Your task to perform on an android device: Clear the shopping cart on amazon. Search for usb-b on amazon, select the first entry, and add it to the cart. Image 0: 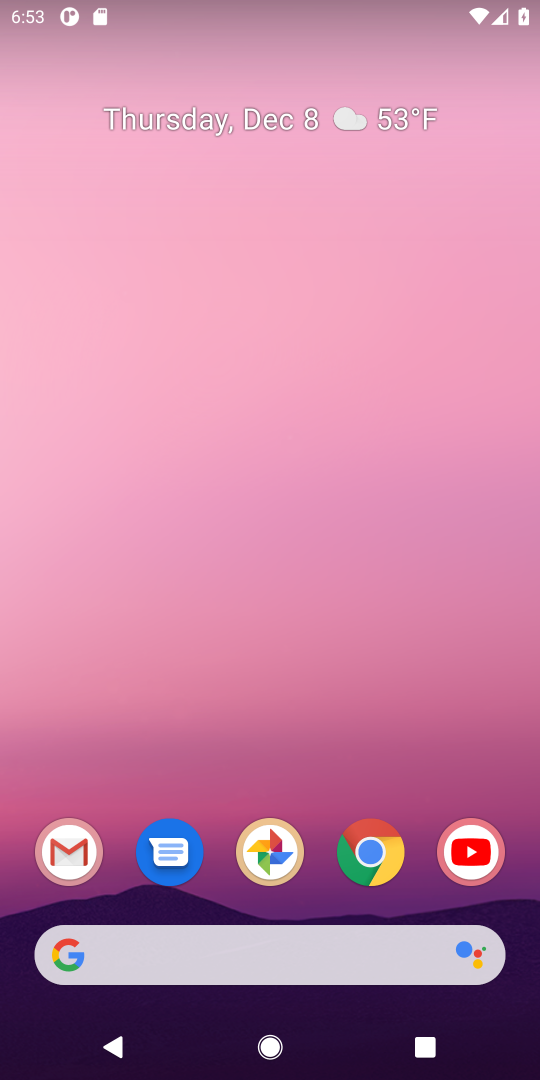
Step 0: click (339, 958)
Your task to perform on an android device: Clear the shopping cart on amazon. Search for usb-b on amazon, select the first entry, and add it to the cart. Image 1: 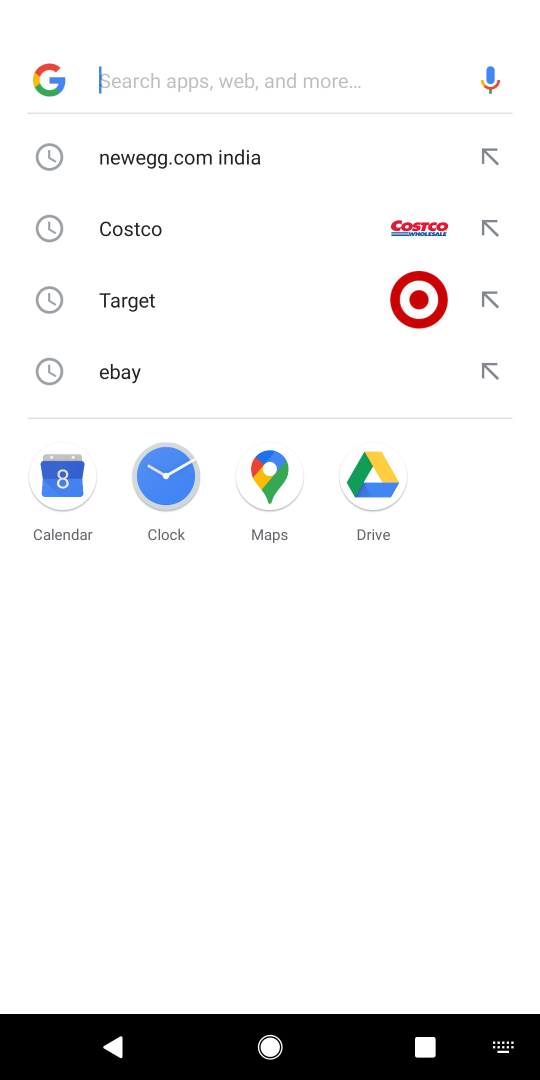
Step 1: type "amamon"
Your task to perform on an android device: Clear the shopping cart on amazon. Search for usb-b on amazon, select the first entry, and add it to the cart. Image 2: 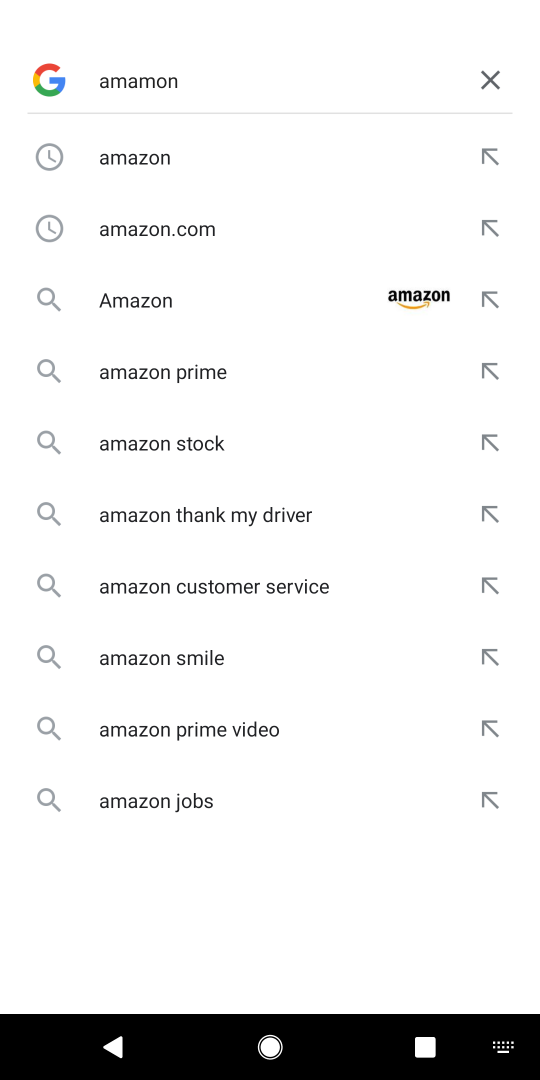
Step 2: click (157, 225)
Your task to perform on an android device: Clear the shopping cart on amazon. Search for usb-b on amazon, select the first entry, and add it to the cart. Image 3: 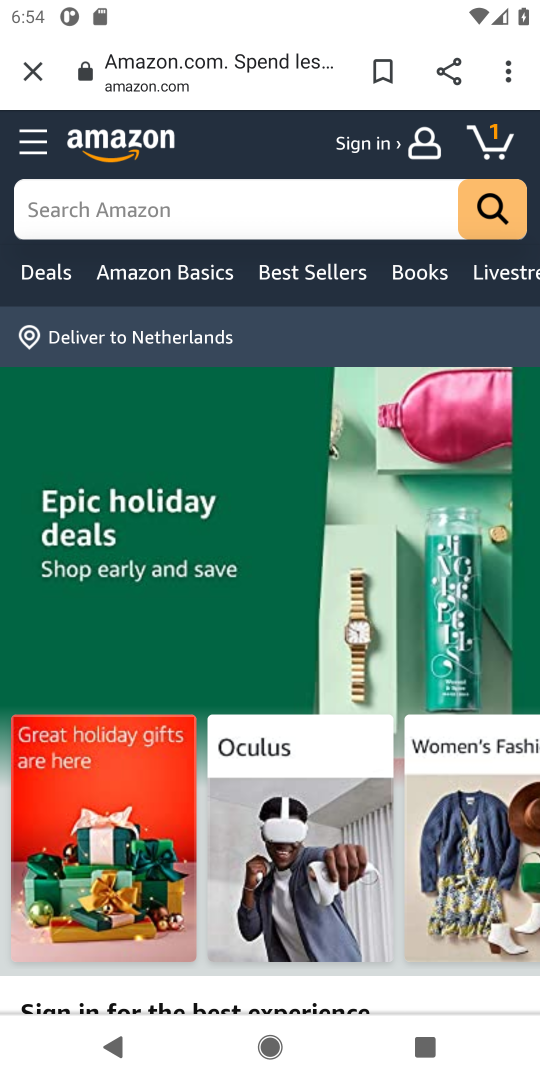
Step 3: click (142, 219)
Your task to perform on an android device: Clear the shopping cart on amazon. Search for usb-b on amazon, select the first entry, and add it to the cart. Image 4: 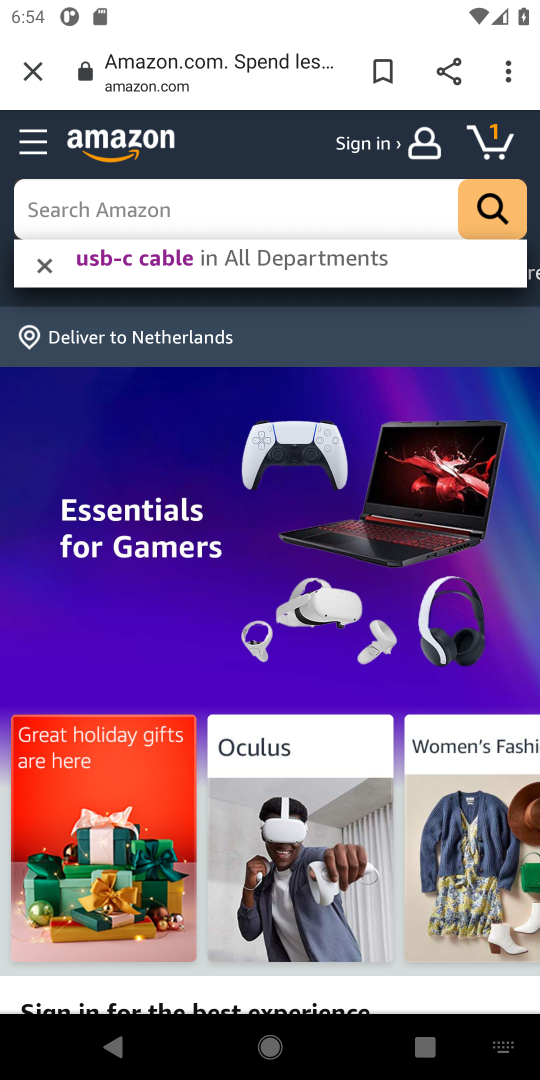
Step 4: type "usb-b"
Your task to perform on an android device: Clear the shopping cart on amazon. Search for usb-b on amazon, select the first entry, and add it to the cart. Image 5: 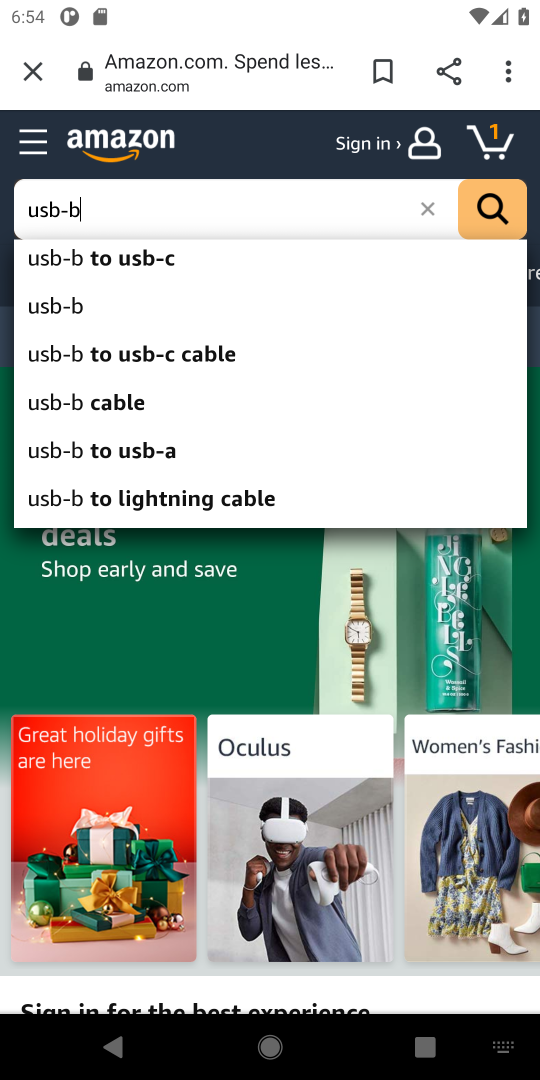
Step 5: click (24, 311)
Your task to perform on an android device: Clear the shopping cart on amazon. Search for usb-b on amazon, select the first entry, and add it to the cart. Image 6: 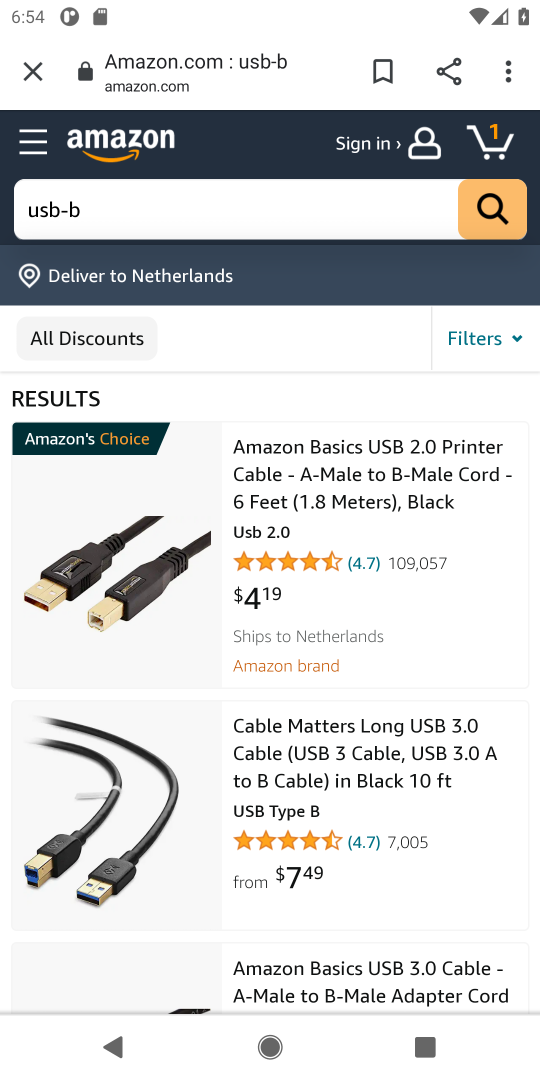
Step 6: click (316, 475)
Your task to perform on an android device: Clear the shopping cart on amazon. Search for usb-b on amazon, select the first entry, and add it to the cart. Image 7: 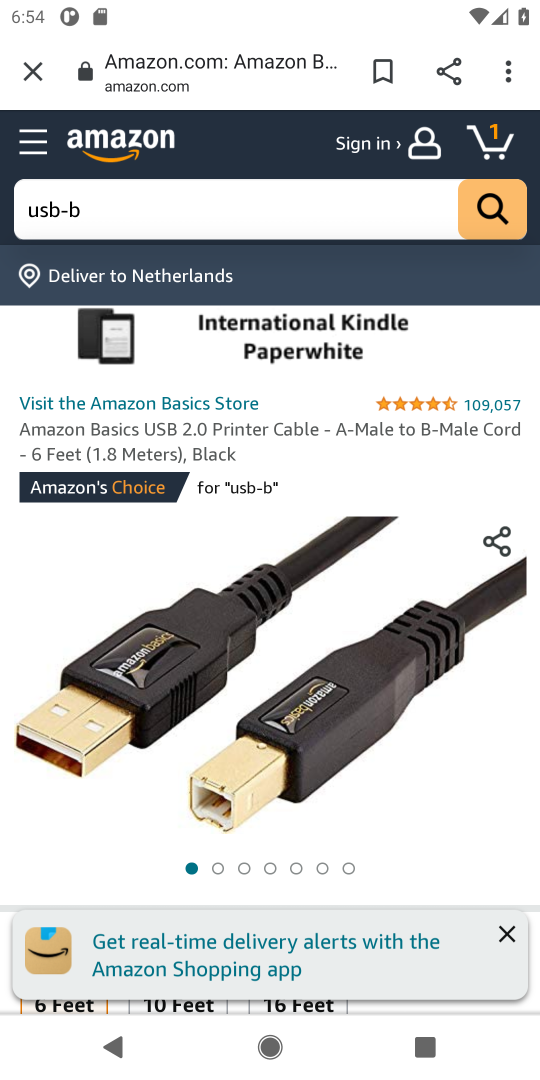
Step 7: drag from (343, 720) to (236, 422)
Your task to perform on an android device: Clear the shopping cart on amazon. Search for usb-b on amazon, select the first entry, and add it to the cart. Image 8: 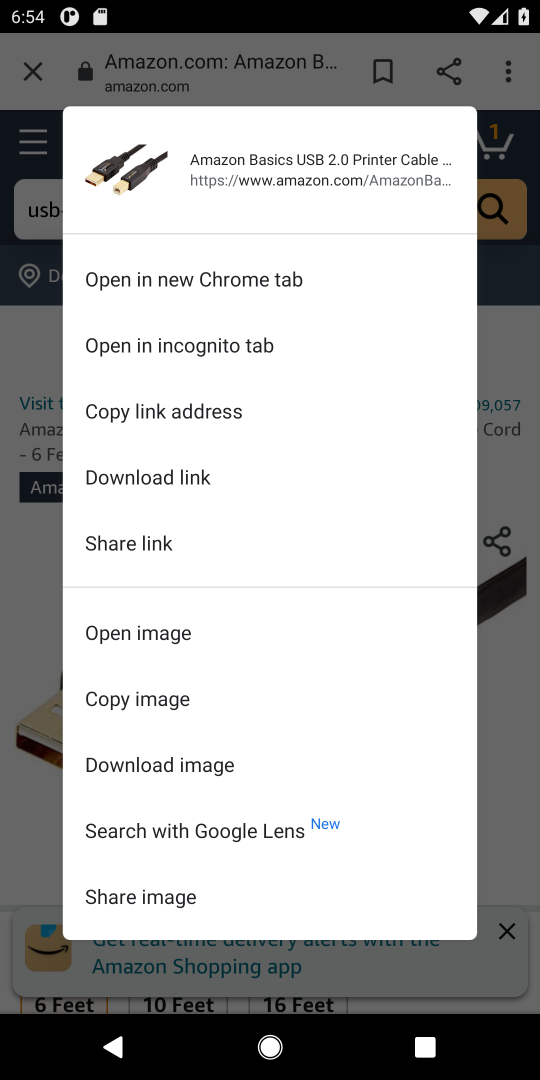
Step 8: click (467, 470)
Your task to perform on an android device: Clear the shopping cart on amazon. Search for usb-b on amazon, select the first entry, and add it to the cart. Image 9: 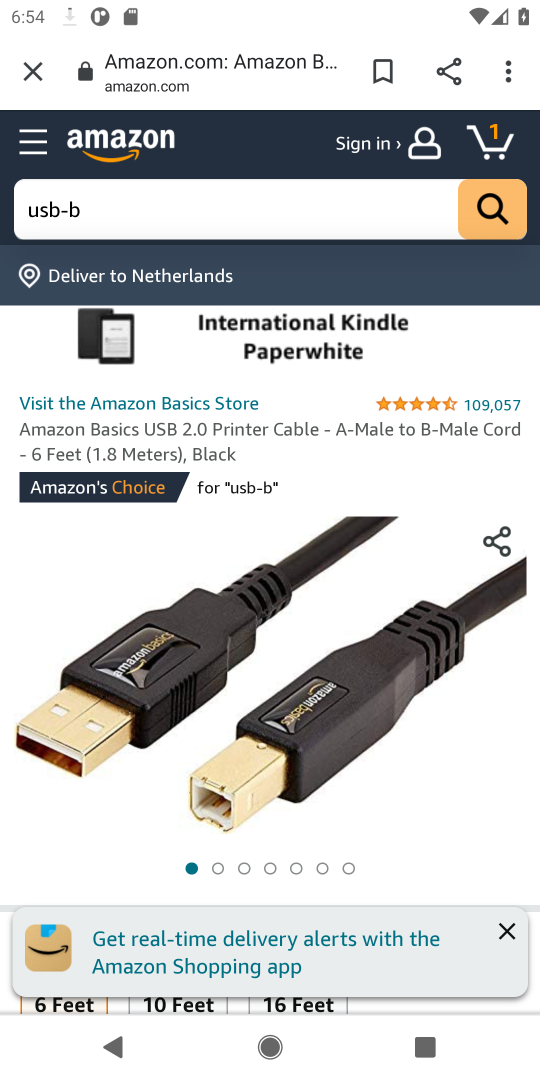
Step 9: drag from (302, 667) to (283, 364)
Your task to perform on an android device: Clear the shopping cart on amazon. Search for usb-b on amazon, select the first entry, and add it to the cart. Image 10: 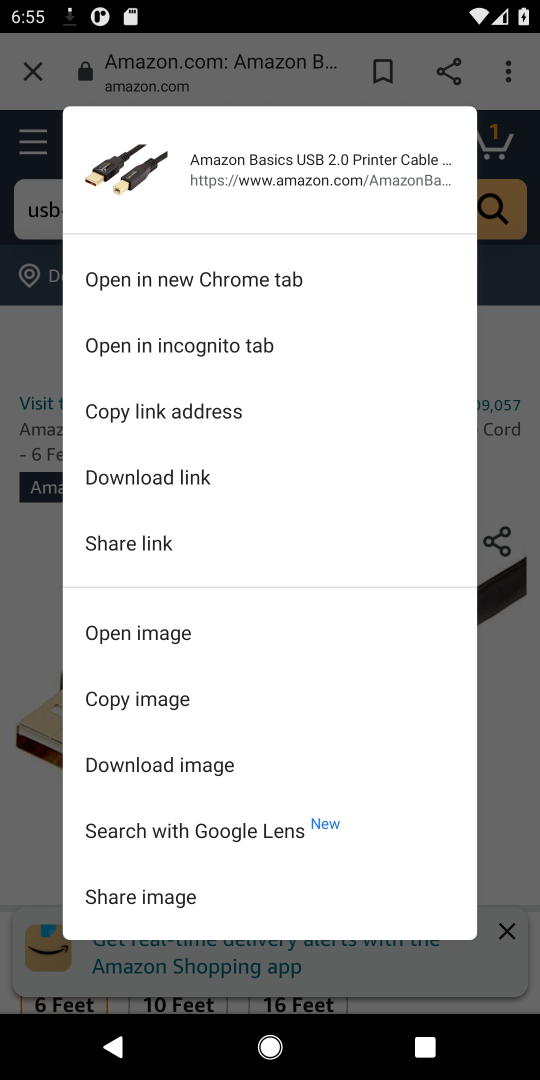
Step 10: click (28, 653)
Your task to perform on an android device: Clear the shopping cart on amazon. Search for usb-b on amazon, select the first entry, and add it to the cart. Image 11: 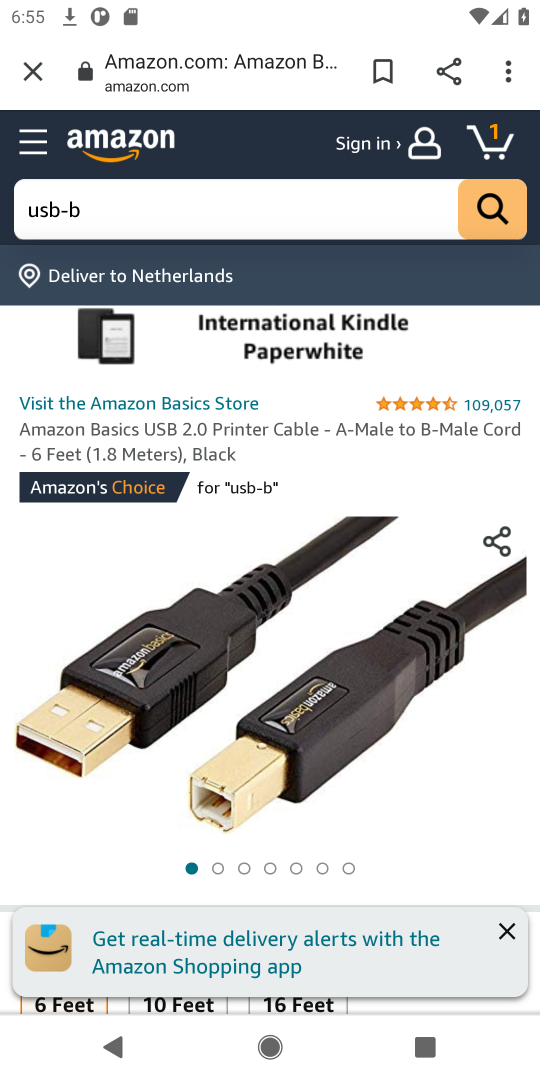
Step 11: drag from (152, 771) to (88, 299)
Your task to perform on an android device: Clear the shopping cart on amazon. Search for usb-b on amazon, select the first entry, and add it to the cart. Image 12: 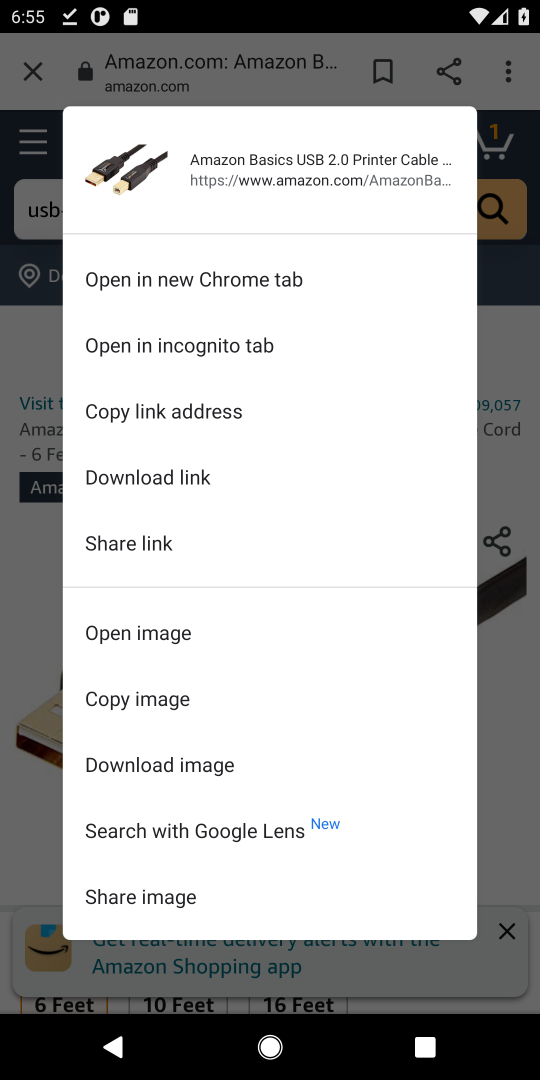
Step 12: click (36, 465)
Your task to perform on an android device: Clear the shopping cart on amazon. Search for usb-b on amazon, select the first entry, and add it to the cart. Image 13: 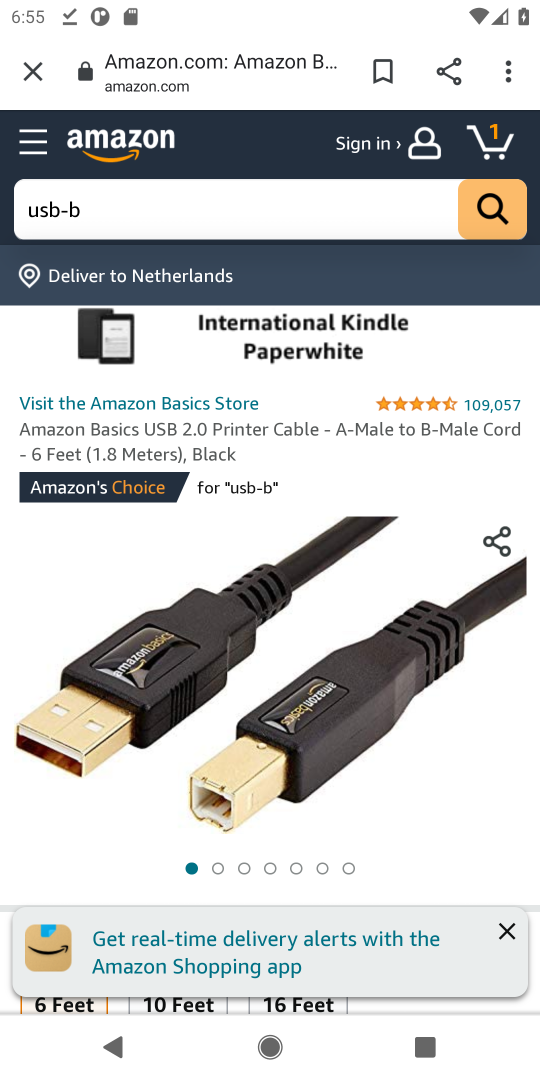
Step 13: click (515, 938)
Your task to perform on an android device: Clear the shopping cart on amazon. Search for usb-b on amazon, select the first entry, and add it to the cart. Image 14: 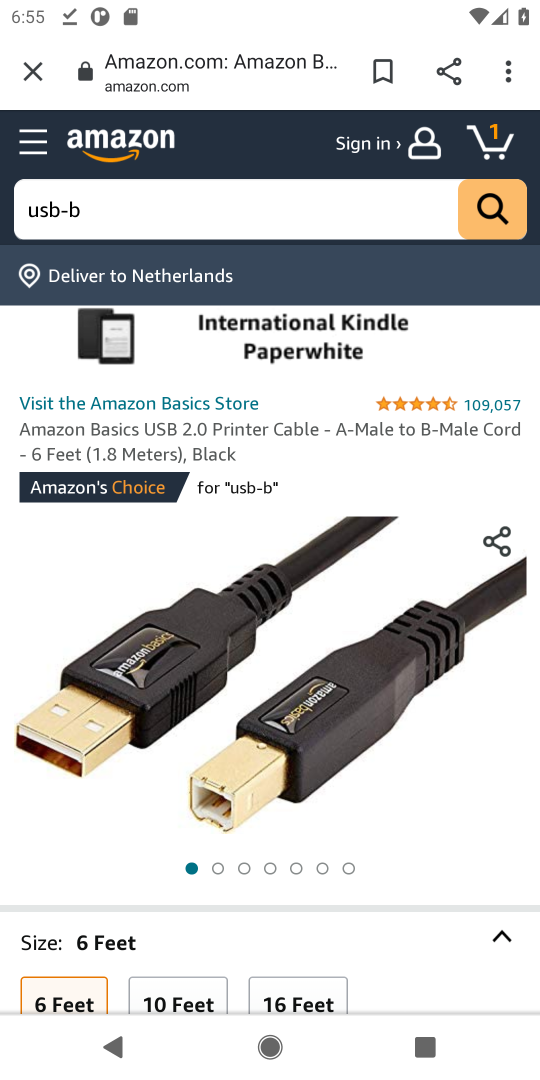
Step 14: drag from (443, 987) to (385, 688)
Your task to perform on an android device: Clear the shopping cart on amazon. Search for usb-b on amazon, select the first entry, and add it to the cart. Image 15: 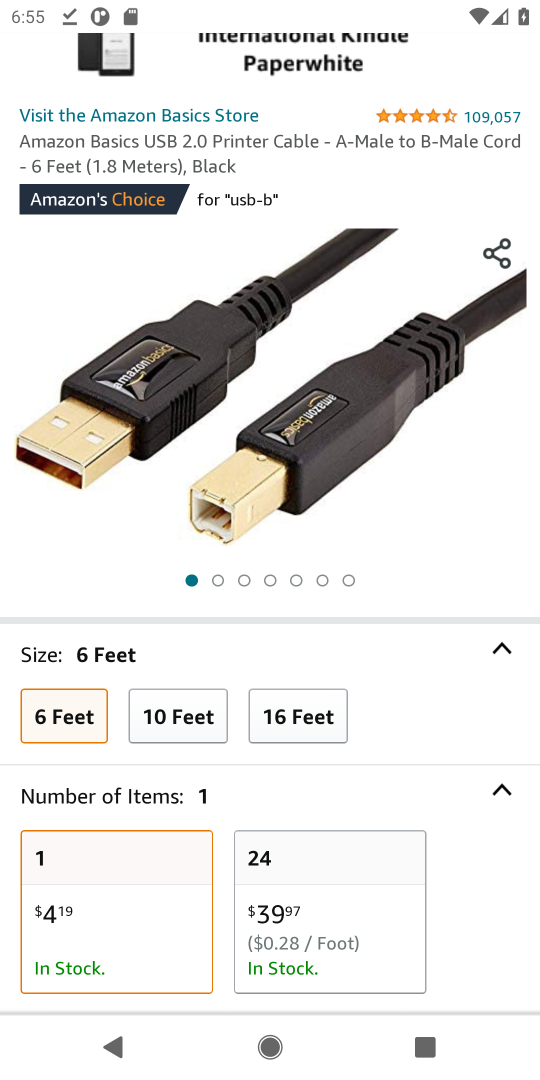
Step 15: click (385, 688)
Your task to perform on an android device: Clear the shopping cart on amazon. Search for usb-b on amazon, select the first entry, and add it to the cart. Image 16: 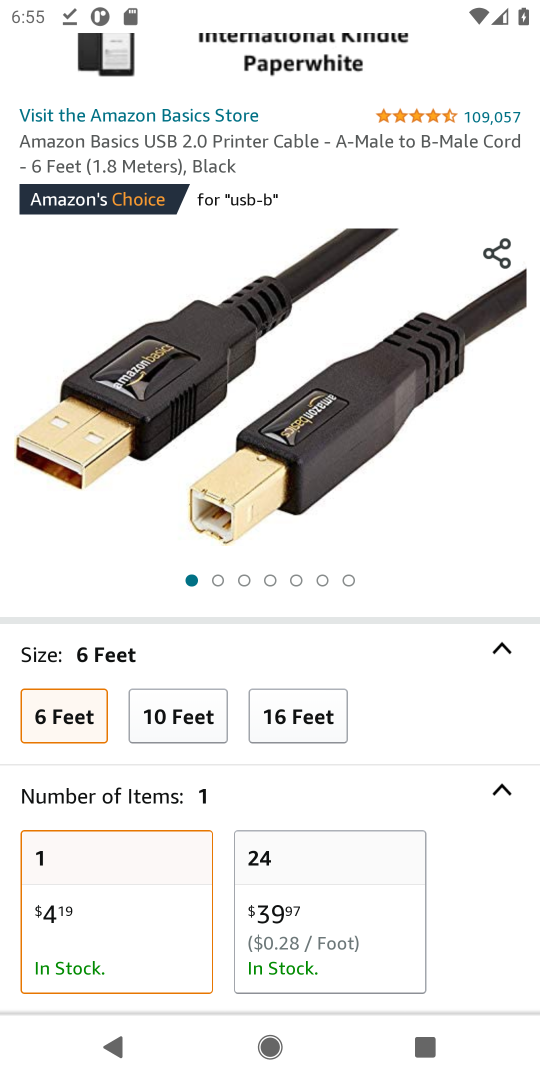
Step 16: task complete